Your task to perform on an android device: Open the phone app and click the voicemail tab. Image 0: 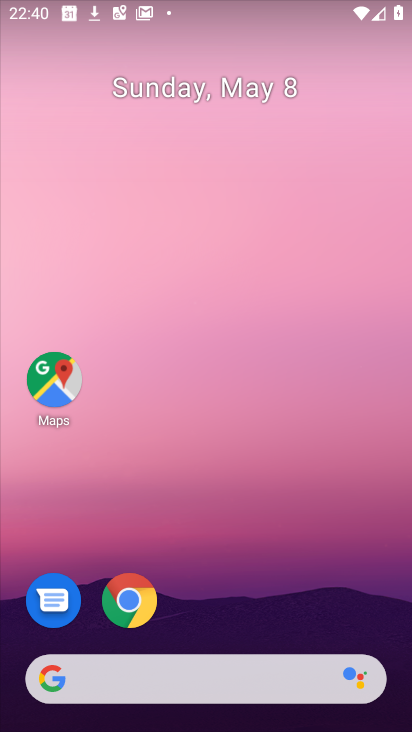
Step 0: drag from (254, 721) to (315, 235)
Your task to perform on an android device: Open the phone app and click the voicemail tab. Image 1: 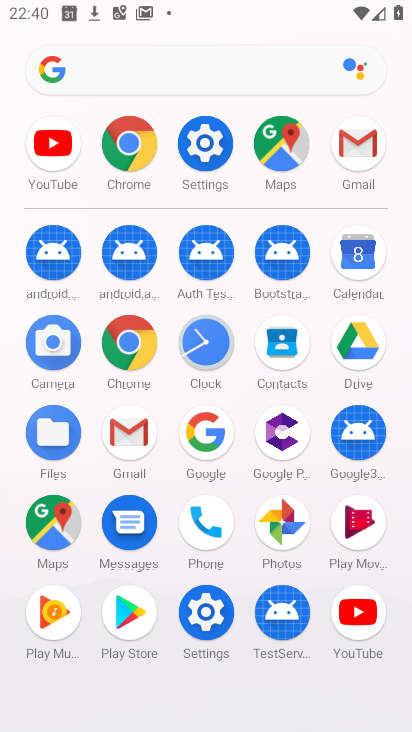
Step 1: click (201, 537)
Your task to perform on an android device: Open the phone app and click the voicemail tab. Image 2: 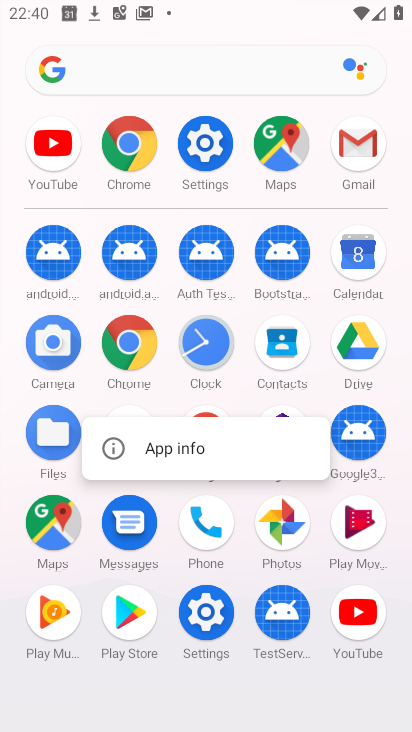
Step 2: click (199, 542)
Your task to perform on an android device: Open the phone app and click the voicemail tab. Image 3: 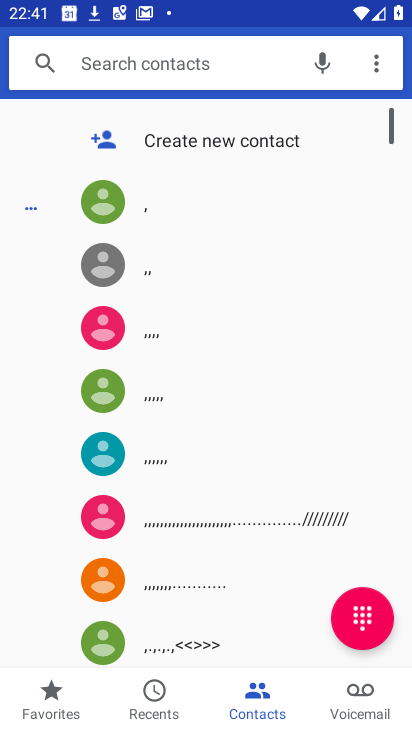
Step 3: click (354, 699)
Your task to perform on an android device: Open the phone app and click the voicemail tab. Image 4: 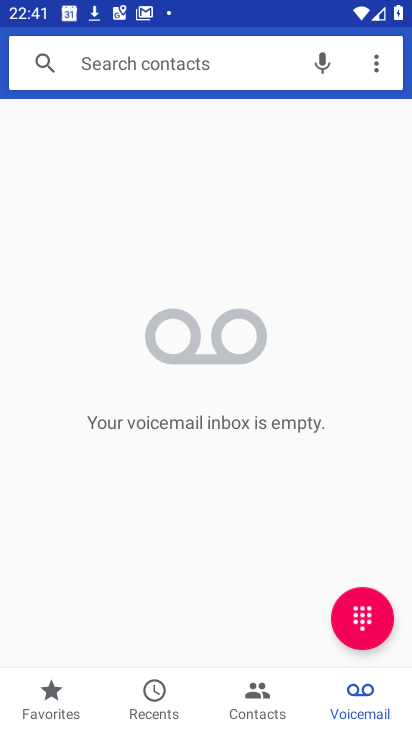
Step 4: task complete